Your task to perform on an android device: turn on improve location accuracy Image 0: 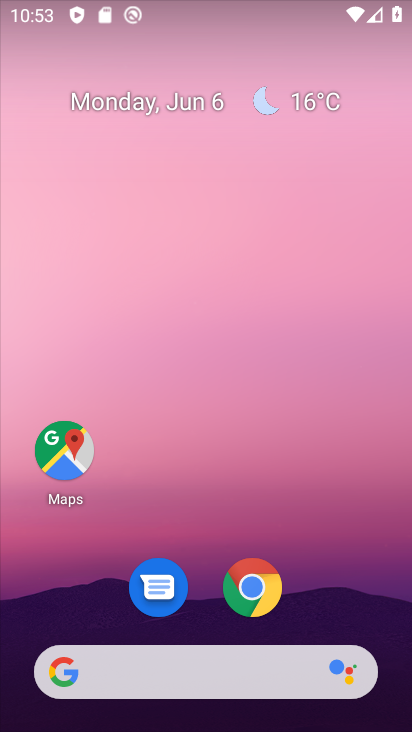
Step 0: drag from (313, 568) to (232, 30)
Your task to perform on an android device: turn on improve location accuracy Image 1: 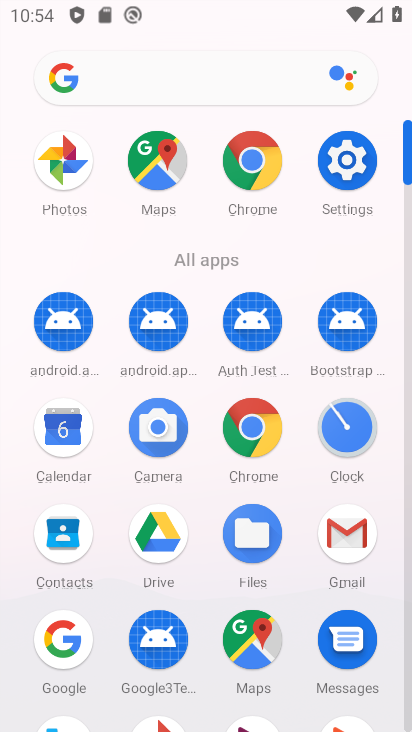
Step 1: drag from (28, 549) to (33, 249)
Your task to perform on an android device: turn on improve location accuracy Image 2: 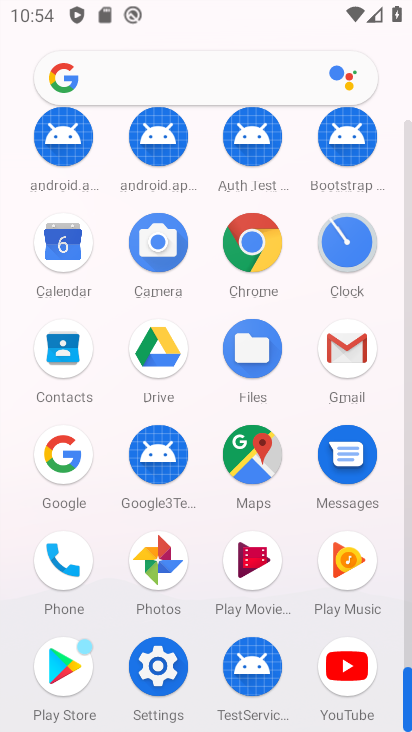
Step 2: click (158, 662)
Your task to perform on an android device: turn on improve location accuracy Image 3: 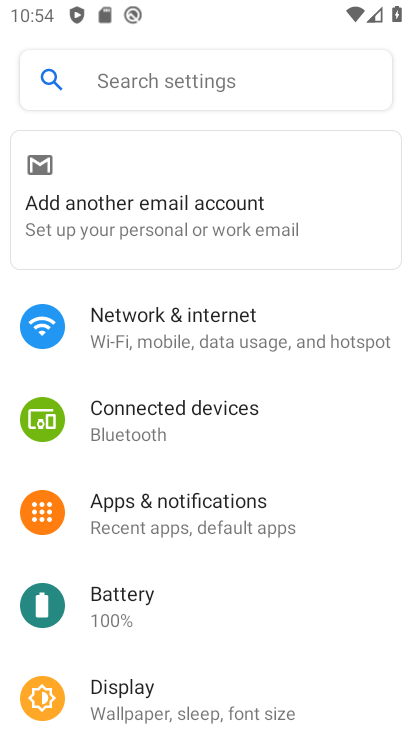
Step 3: drag from (322, 580) to (357, 155)
Your task to perform on an android device: turn on improve location accuracy Image 4: 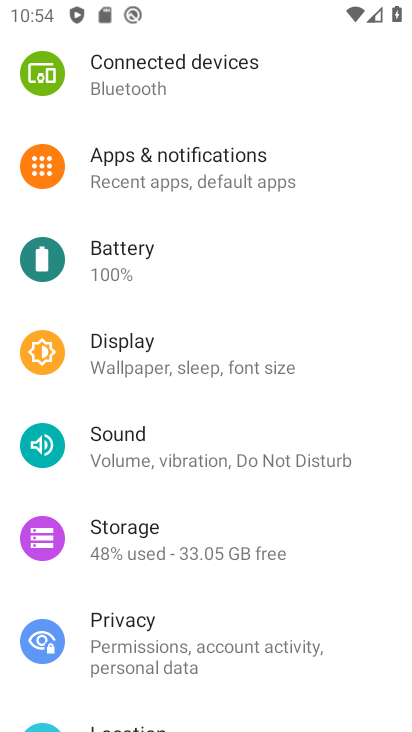
Step 4: drag from (205, 610) to (268, 198)
Your task to perform on an android device: turn on improve location accuracy Image 5: 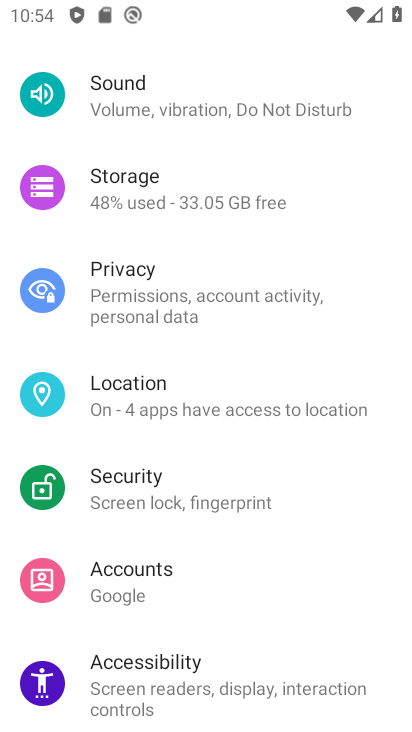
Step 5: click (144, 403)
Your task to perform on an android device: turn on improve location accuracy Image 6: 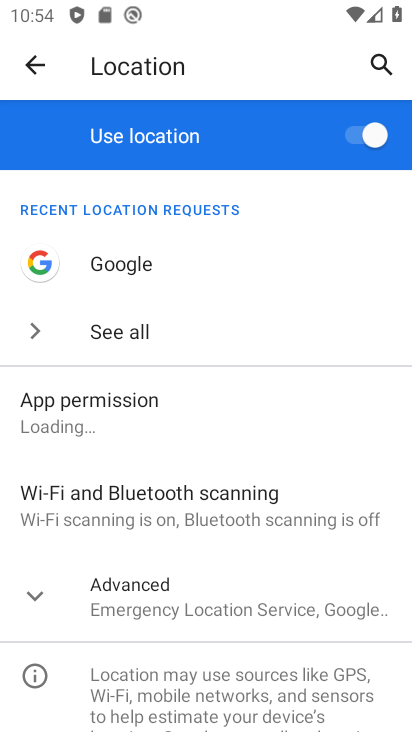
Step 6: click (35, 604)
Your task to perform on an android device: turn on improve location accuracy Image 7: 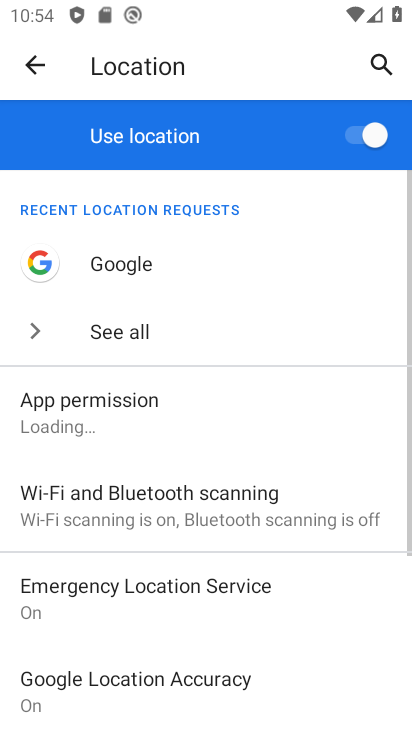
Step 7: drag from (378, 640) to (336, 257)
Your task to perform on an android device: turn on improve location accuracy Image 8: 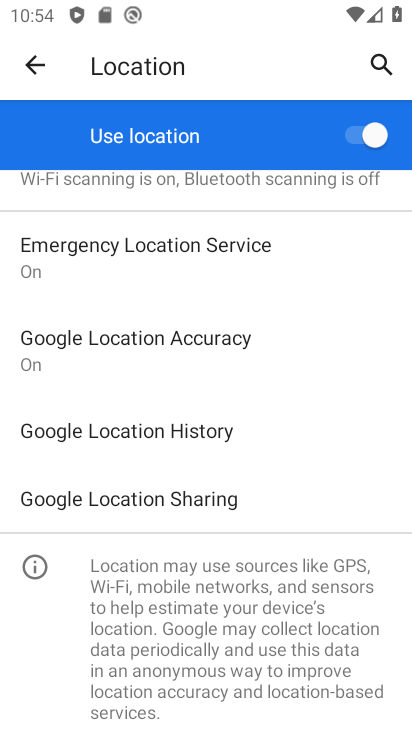
Step 8: click (198, 340)
Your task to perform on an android device: turn on improve location accuracy Image 9: 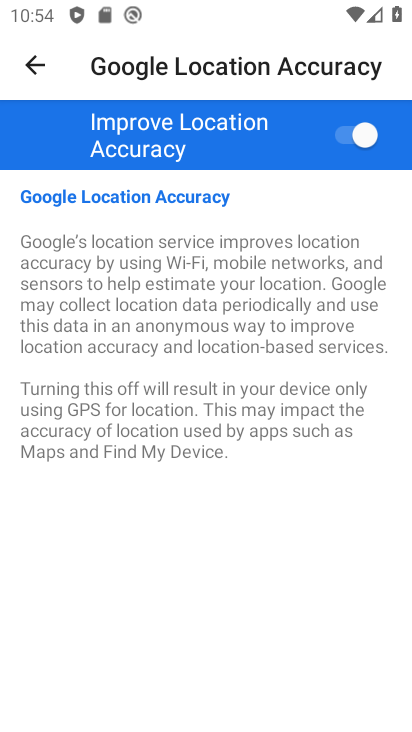
Step 9: task complete